Your task to perform on an android device: set the timer Image 0: 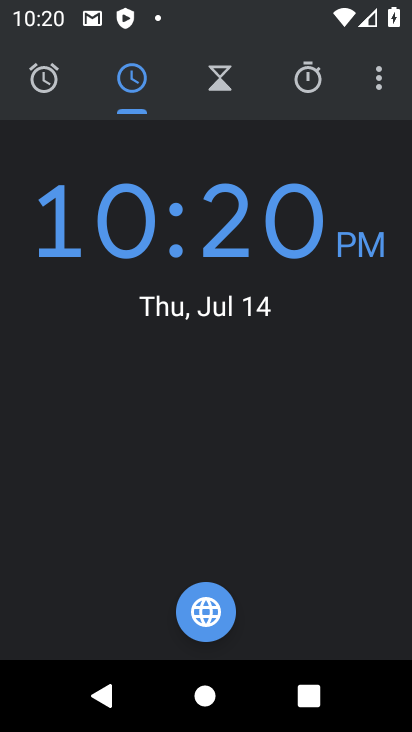
Step 0: press back button
Your task to perform on an android device: set the timer Image 1: 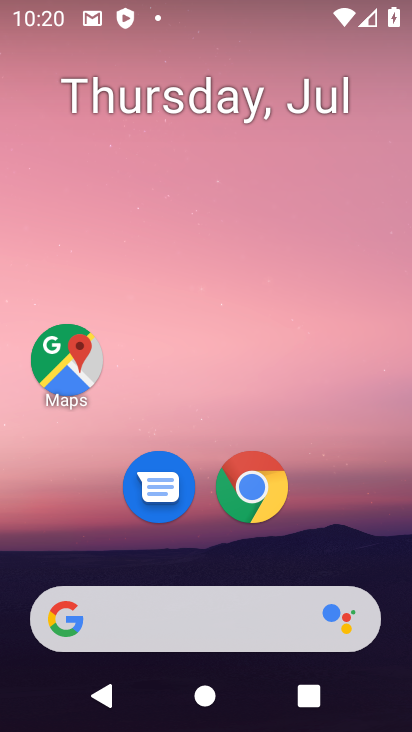
Step 1: drag from (247, 584) to (307, 30)
Your task to perform on an android device: set the timer Image 2: 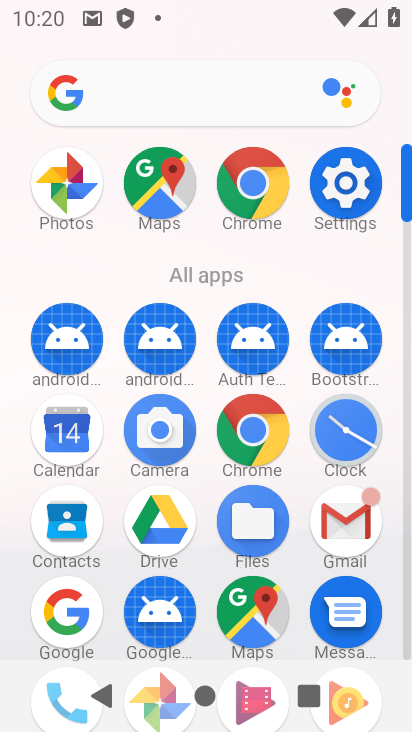
Step 2: click (368, 438)
Your task to perform on an android device: set the timer Image 3: 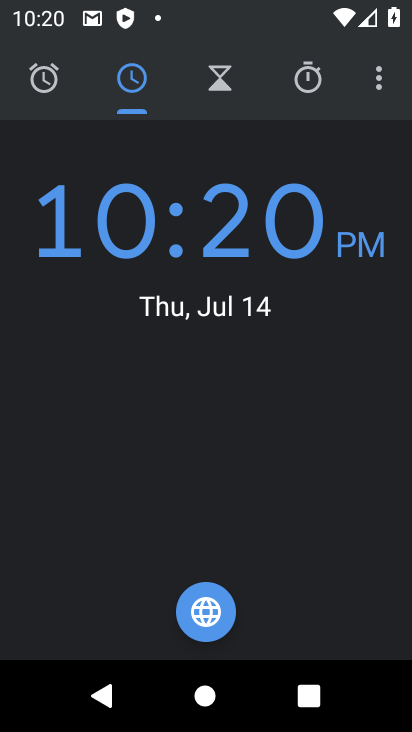
Step 3: click (313, 71)
Your task to perform on an android device: set the timer Image 4: 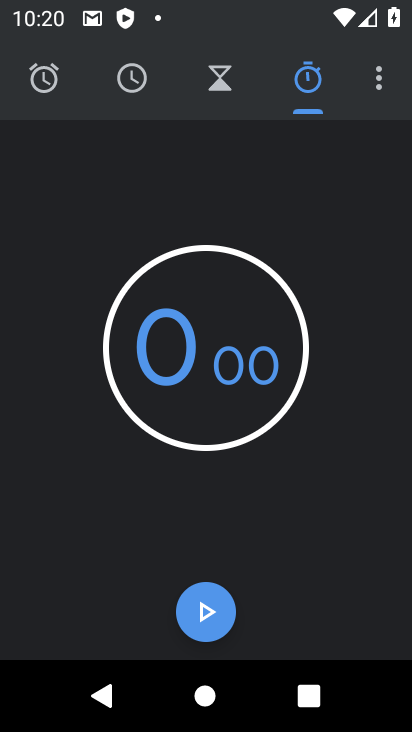
Step 4: click (244, 76)
Your task to perform on an android device: set the timer Image 5: 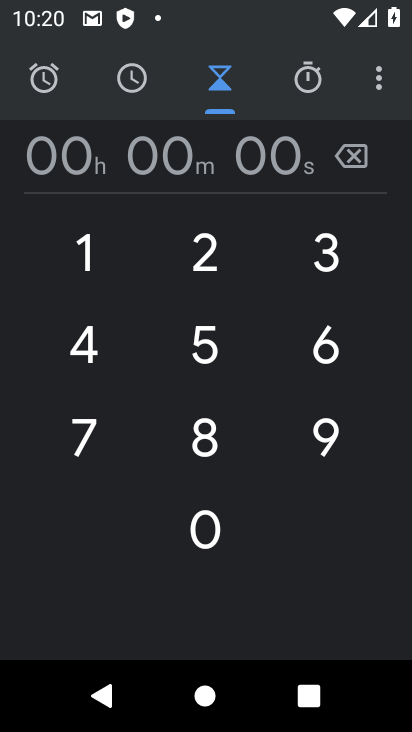
Step 5: click (228, 264)
Your task to perform on an android device: set the timer Image 6: 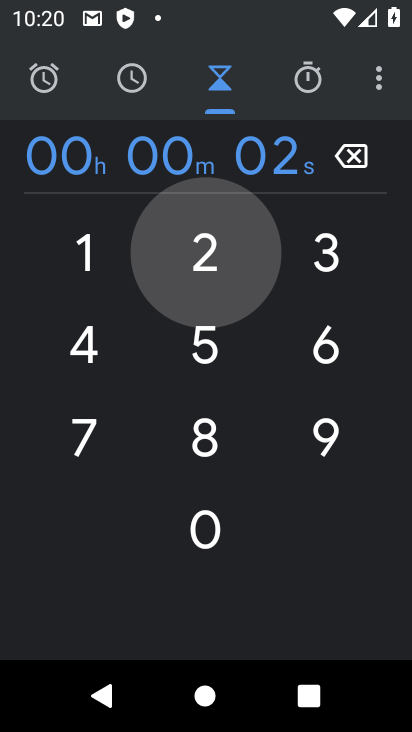
Step 6: click (331, 239)
Your task to perform on an android device: set the timer Image 7: 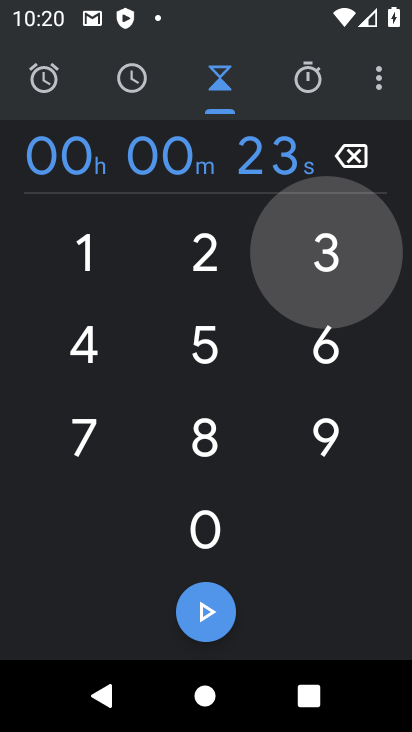
Step 7: click (211, 347)
Your task to perform on an android device: set the timer Image 8: 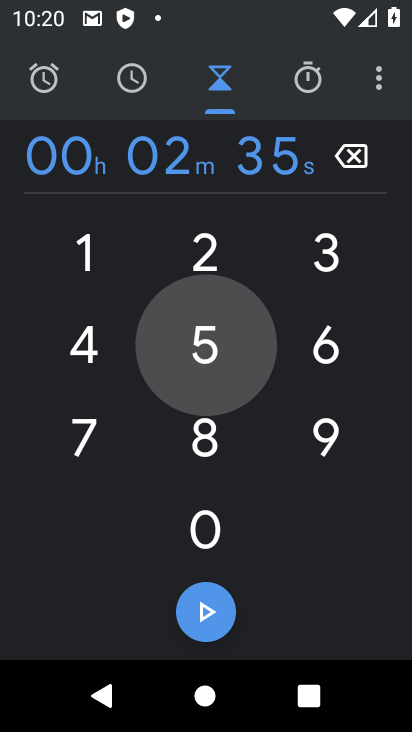
Step 8: click (289, 330)
Your task to perform on an android device: set the timer Image 9: 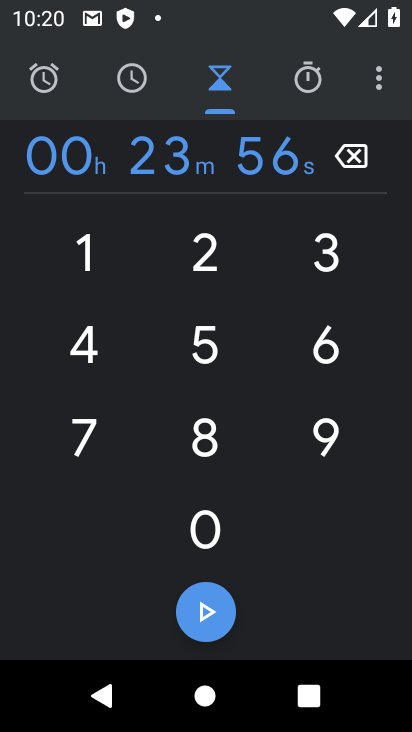
Step 9: click (222, 403)
Your task to perform on an android device: set the timer Image 10: 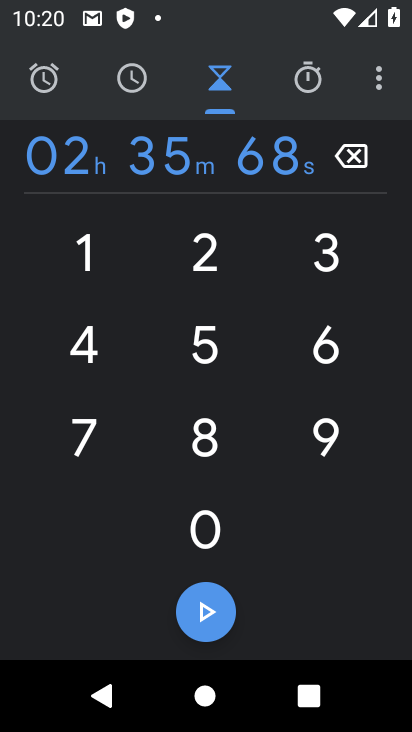
Step 10: task complete